Your task to perform on an android device: Open settings Image 0: 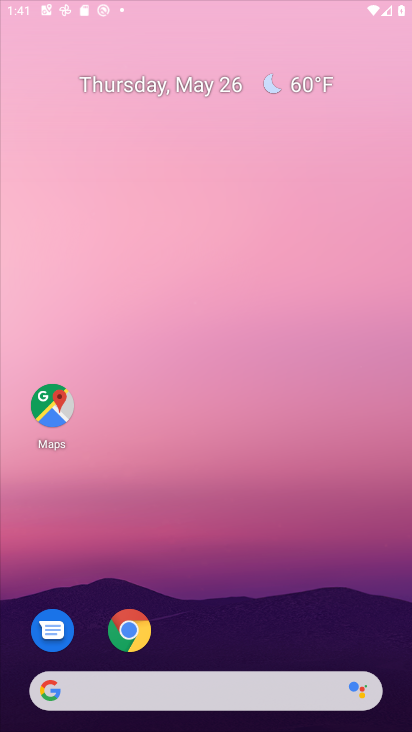
Step 0: drag from (303, 612) to (370, 57)
Your task to perform on an android device: Open settings Image 1: 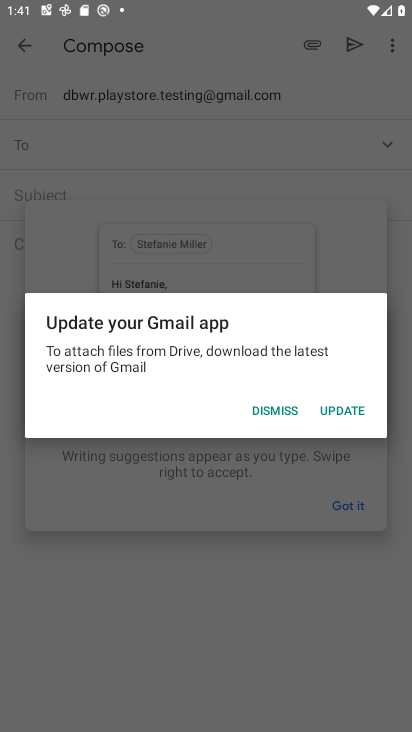
Step 1: press home button
Your task to perform on an android device: Open settings Image 2: 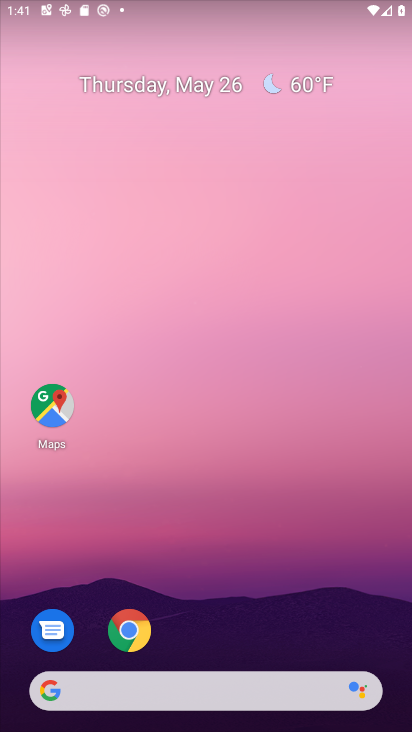
Step 2: drag from (322, 519) to (362, 116)
Your task to perform on an android device: Open settings Image 3: 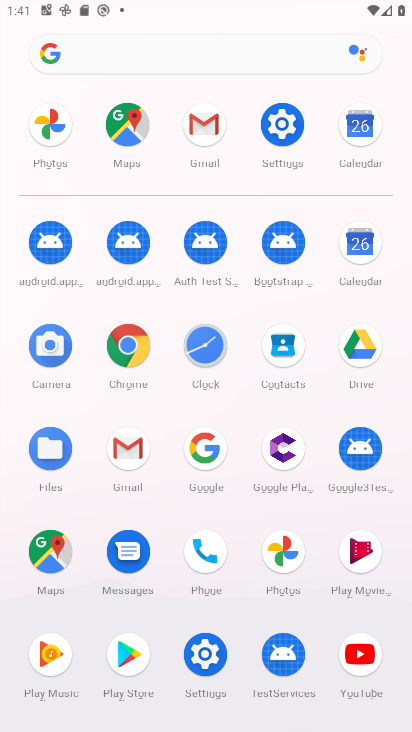
Step 3: click (287, 130)
Your task to perform on an android device: Open settings Image 4: 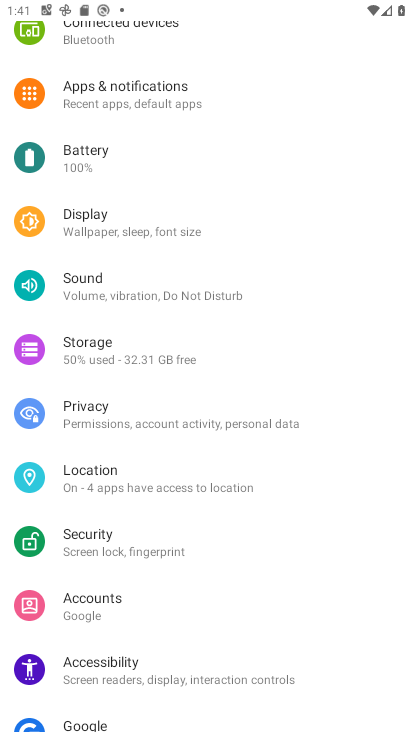
Step 4: task complete